Your task to perform on an android device: Go to Reddit.com Image 0: 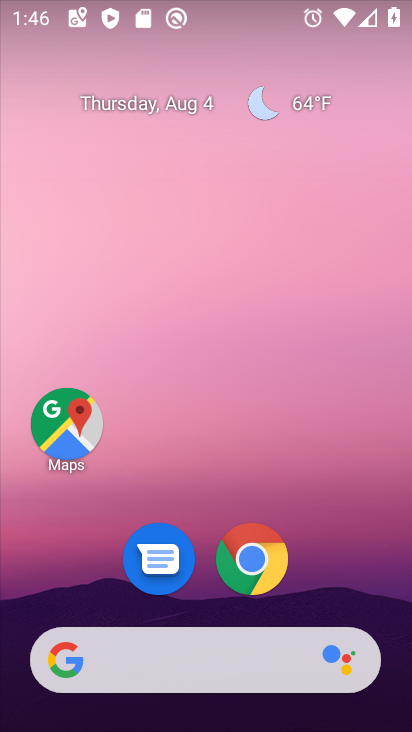
Step 0: press home button
Your task to perform on an android device: Go to Reddit.com Image 1: 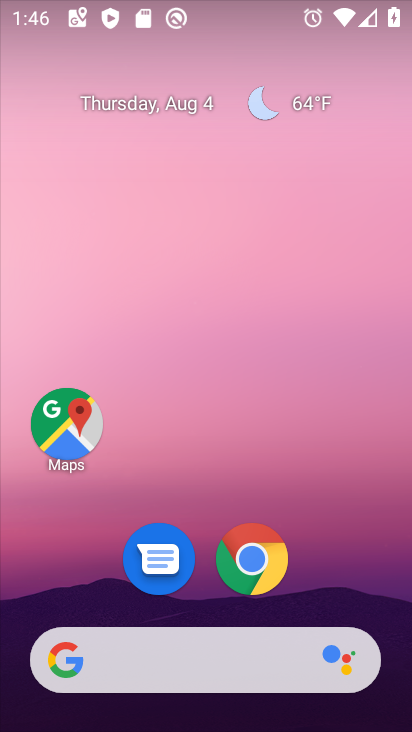
Step 1: click (252, 559)
Your task to perform on an android device: Go to Reddit.com Image 2: 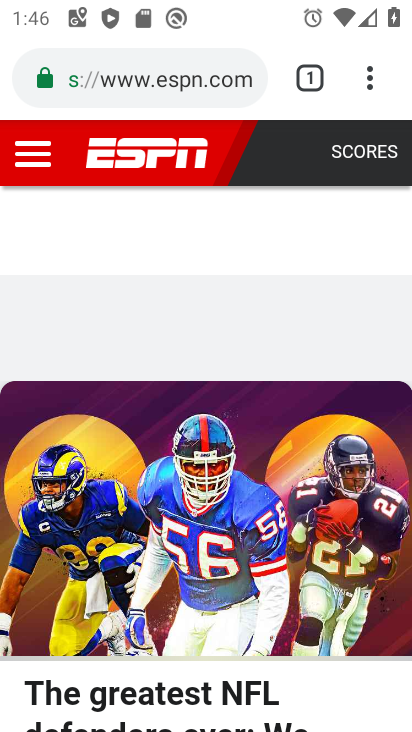
Step 2: click (248, 87)
Your task to perform on an android device: Go to Reddit.com Image 3: 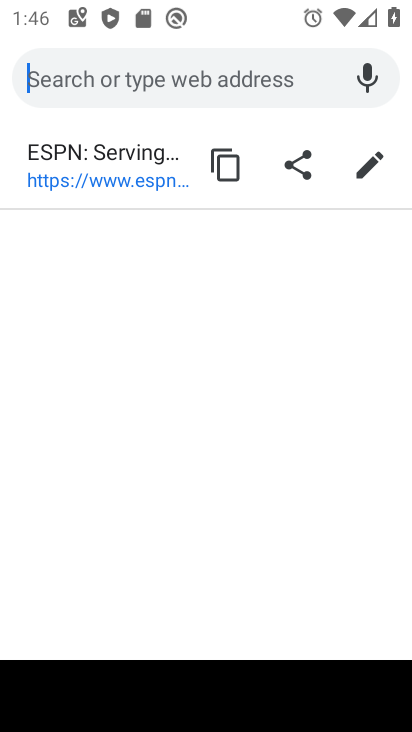
Step 3: type "Reddit.com"
Your task to perform on an android device: Go to Reddit.com Image 4: 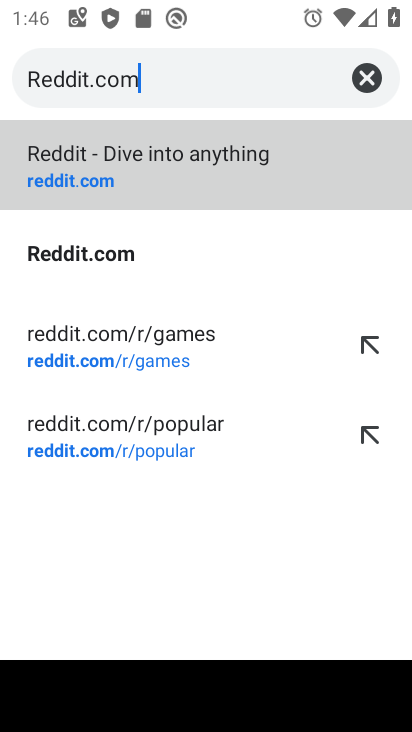
Step 4: click (121, 247)
Your task to perform on an android device: Go to Reddit.com Image 5: 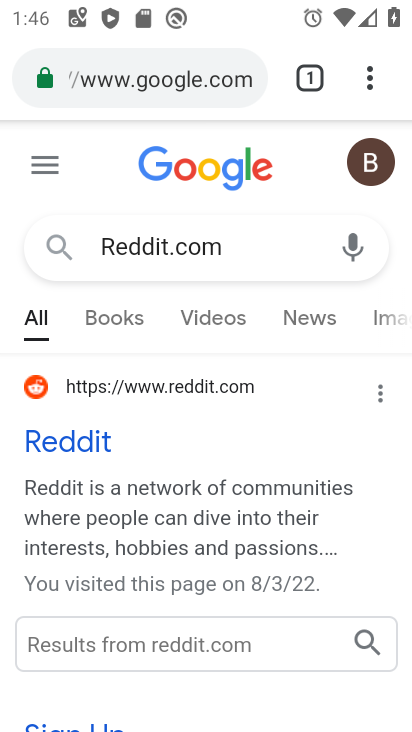
Step 5: click (80, 447)
Your task to perform on an android device: Go to Reddit.com Image 6: 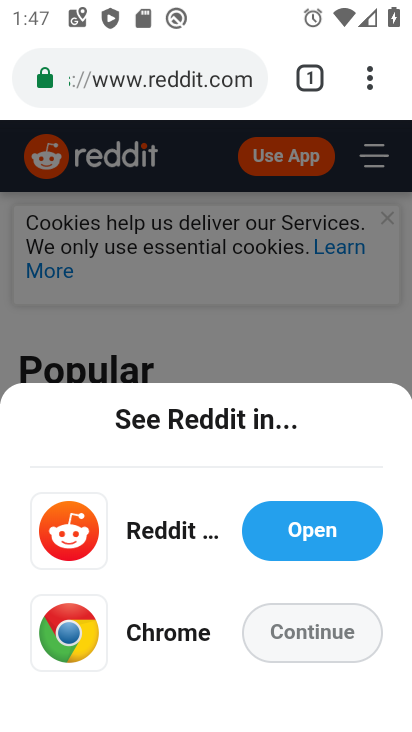
Step 6: click (316, 628)
Your task to perform on an android device: Go to Reddit.com Image 7: 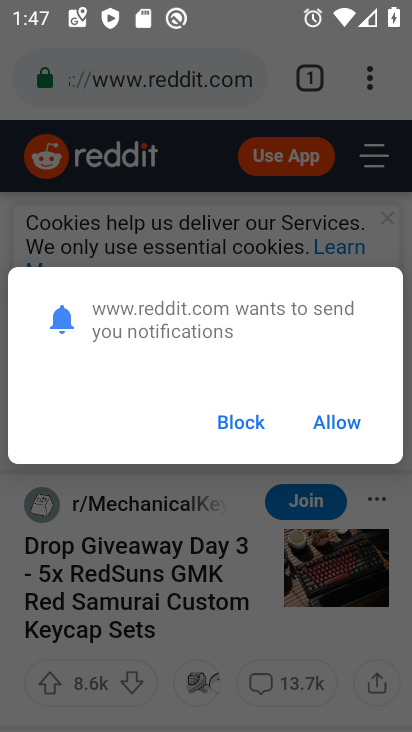
Step 7: click (360, 431)
Your task to perform on an android device: Go to Reddit.com Image 8: 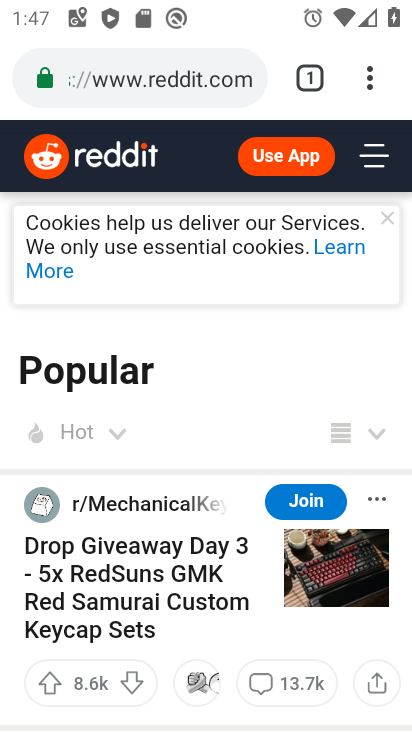
Step 8: task complete